Your task to perform on an android device: open wifi settings Image 0: 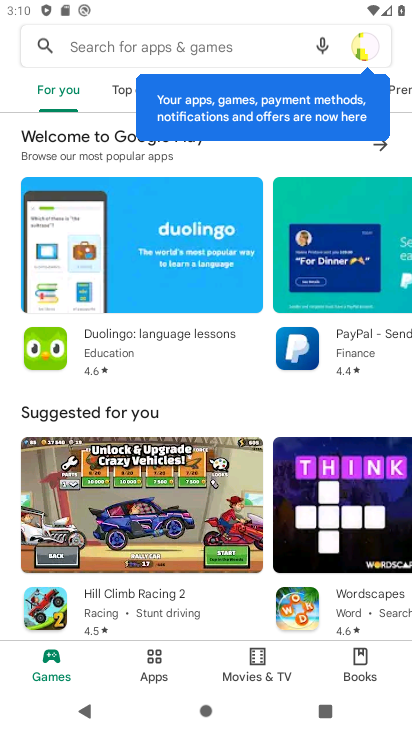
Step 0: press home button
Your task to perform on an android device: open wifi settings Image 1: 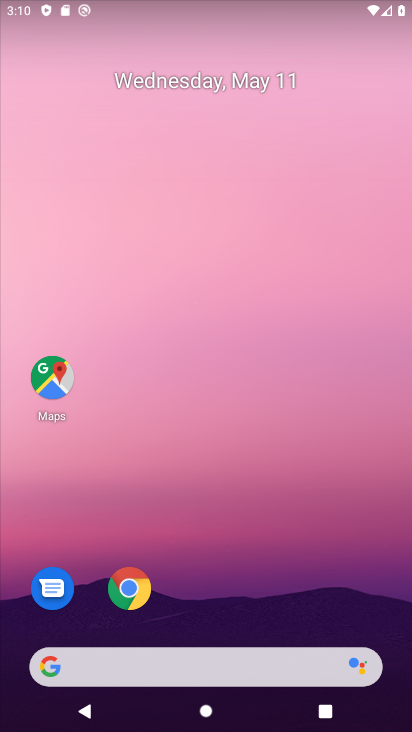
Step 1: drag from (228, 622) to (378, 6)
Your task to perform on an android device: open wifi settings Image 2: 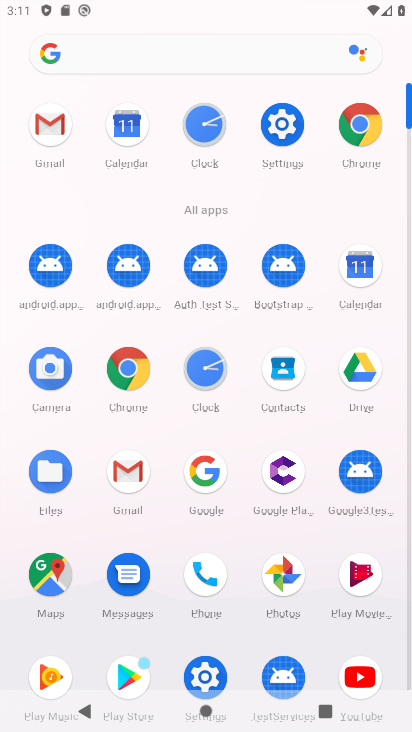
Step 2: click (287, 137)
Your task to perform on an android device: open wifi settings Image 3: 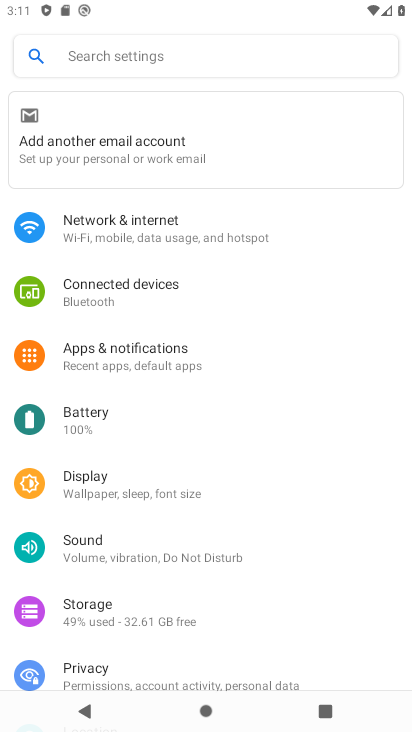
Step 3: click (170, 226)
Your task to perform on an android device: open wifi settings Image 4: 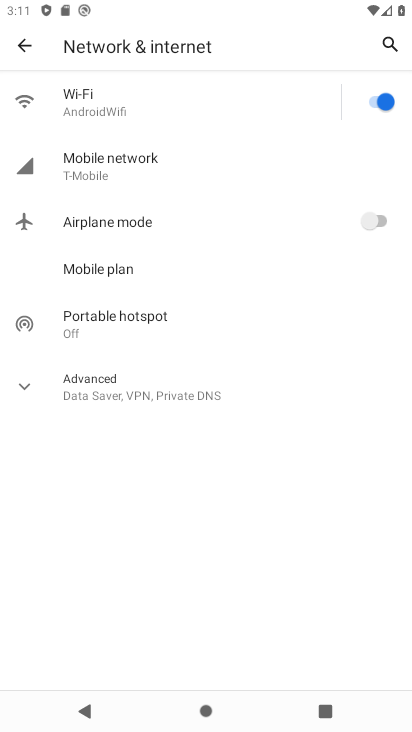
Step 4: click (117, 100)
Your task to perform on an android device: open wifi settings Image 5: 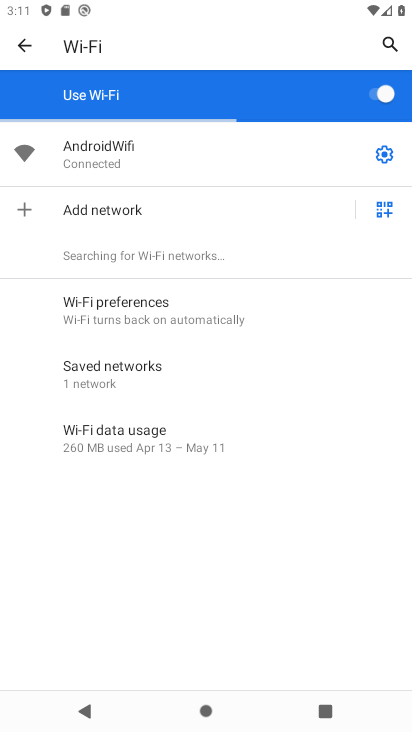
Step 5: task complete